Your task to perform on an android device: What's the weather? Image 0: 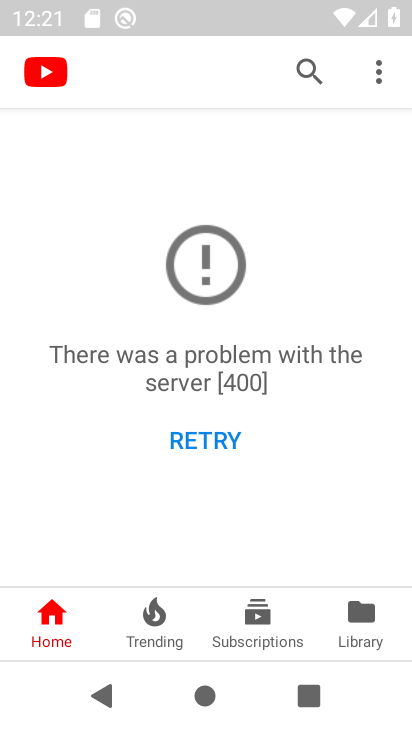
Step 0: press back button
Your task to perform on an android device: What's the weather? Image 1: 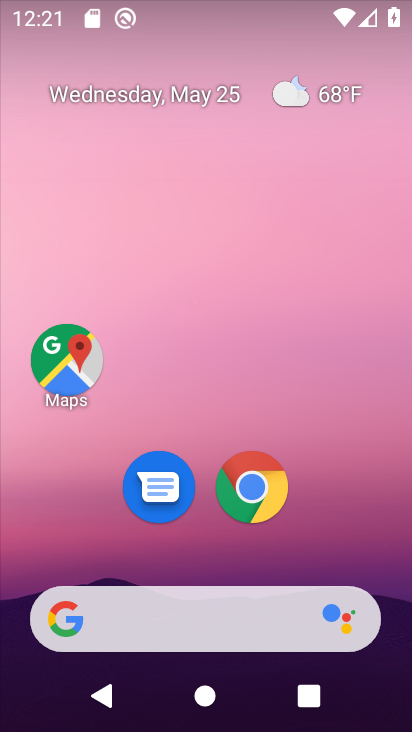
Step 1: click (284, 94)
Your task to perform on an android device: What's the weather? Image 2: 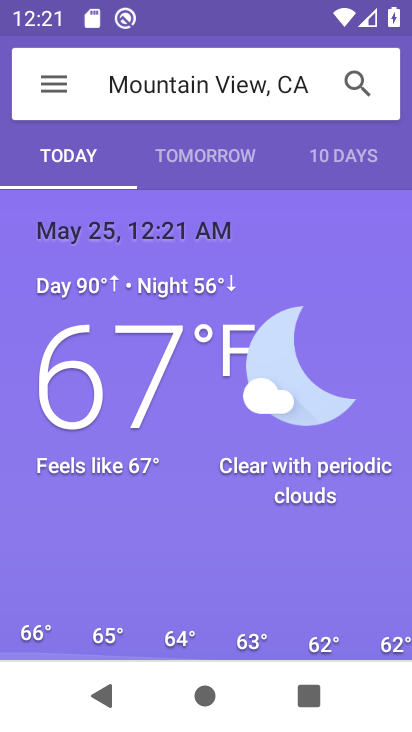
Step 2: task complete